Your task to perform on an android device: open app "Duolingo: language lessons" Image 0: 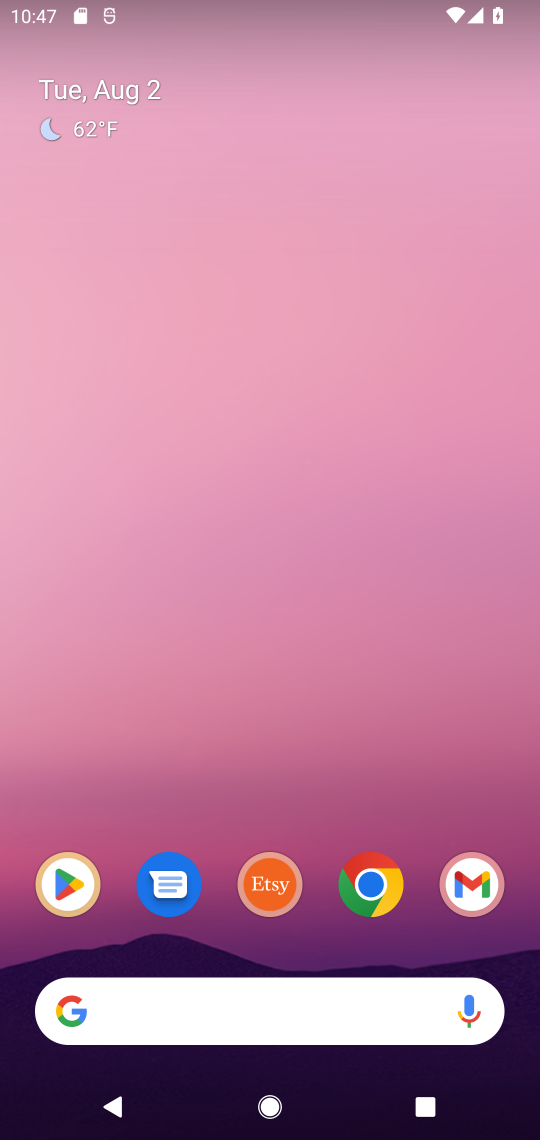
Step 0: click (65, 877)
Your task to perform on an android device: open app "Duolingo: language lessons" Image 1: 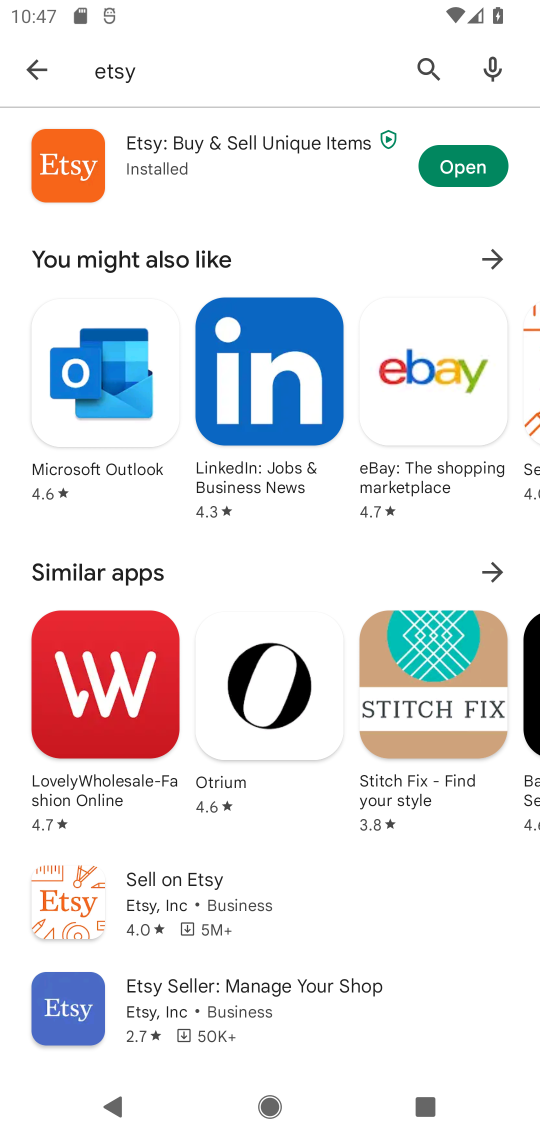
Step 1: click (173, 65)
Your task to perform on an android device: open app "Duolingo: language lessons" Image 2: 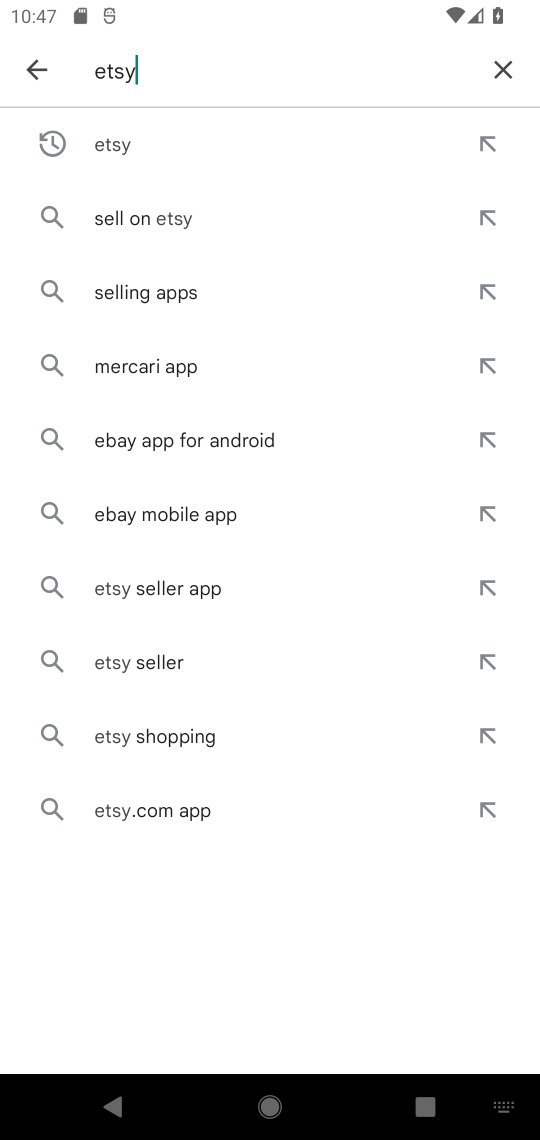
Step 2: click (501, 68)
Your task to perform on an android device: open app "Duolingo: language lessons" Image 3: 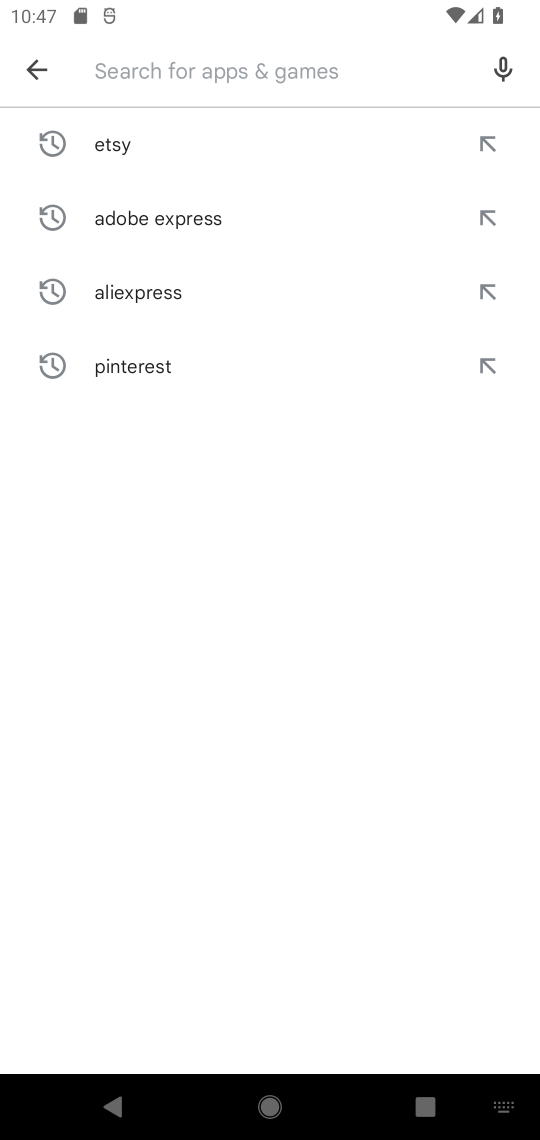
Step 3: type "Duolingo"
Your task to perform on an android device: open app "Duolingo: language lessons" Image 4: 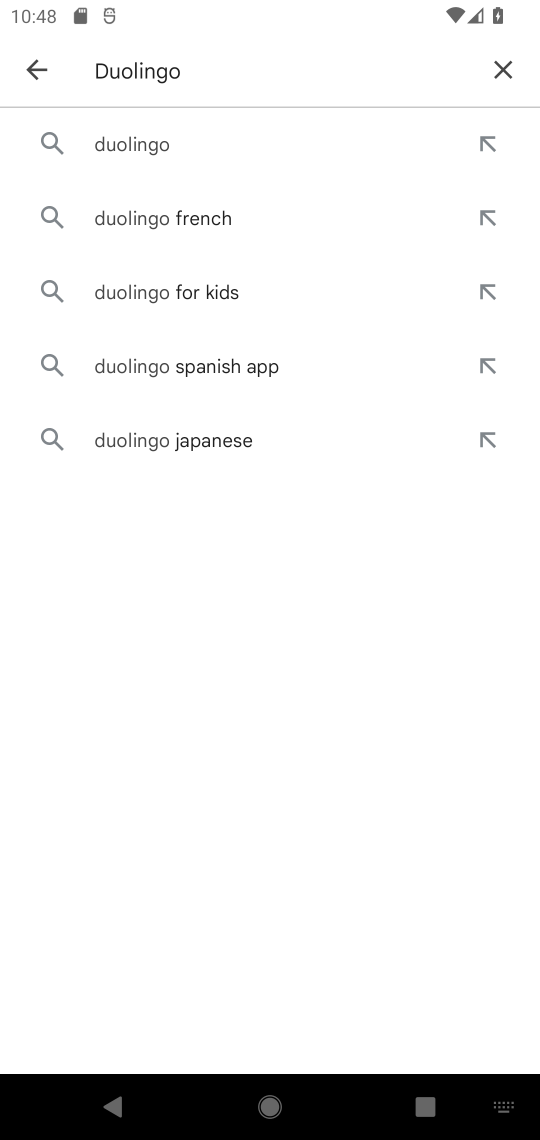
Step 4: click (164, 144)
Your task to perform on an android device: open app "Duolingo: language lessons" Image 5: 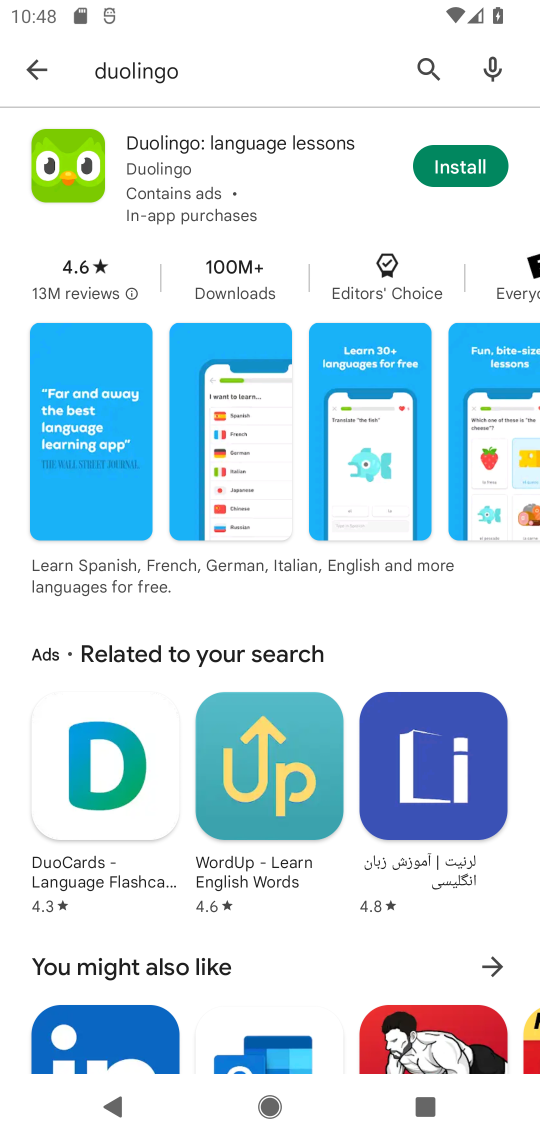
Step 5: task complete